Your task to perform on an android device: Show me productivity apps on the Play Store Image 0: 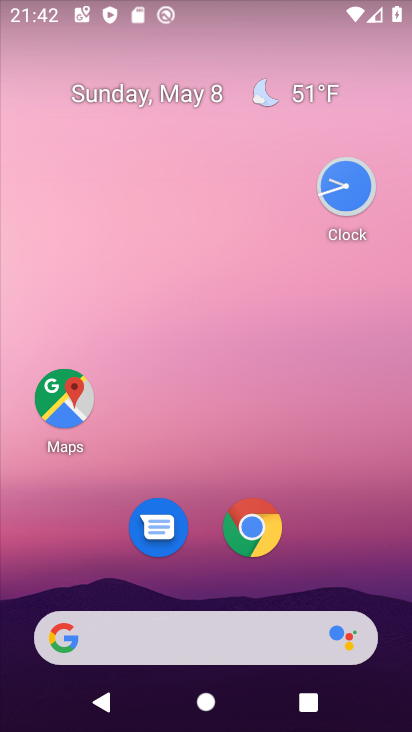
Step 0: drag from (201, 698) to (242, 302)
Your task to perform on an android device: Show me productivity apps on the Play Store Image 1: 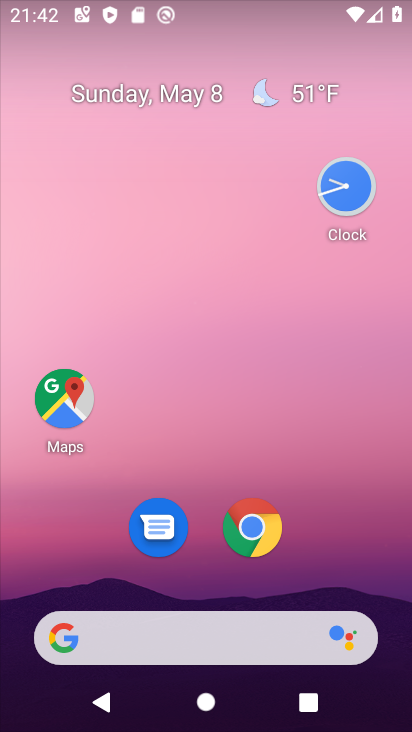
Step 1: drag from (137, 619) to (294, 86)
Your task to perform on an android device: Show me productivity apps on the Play Store Image 2: 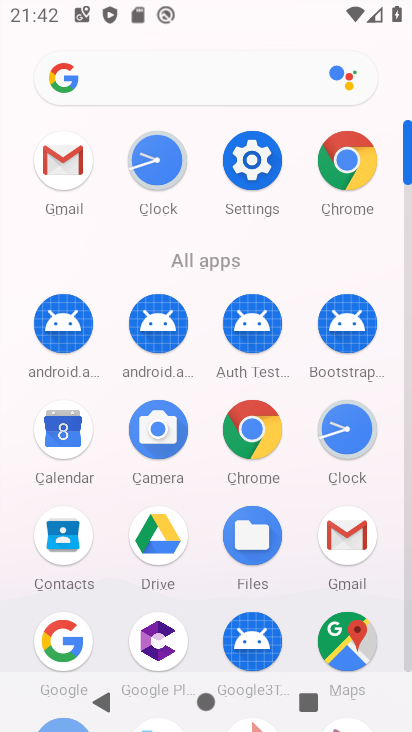
Step 2: drag from (147, 562) to (257, 190)
Your task to perform on an android device: Show me productivity apps on the Play Store Image 3: 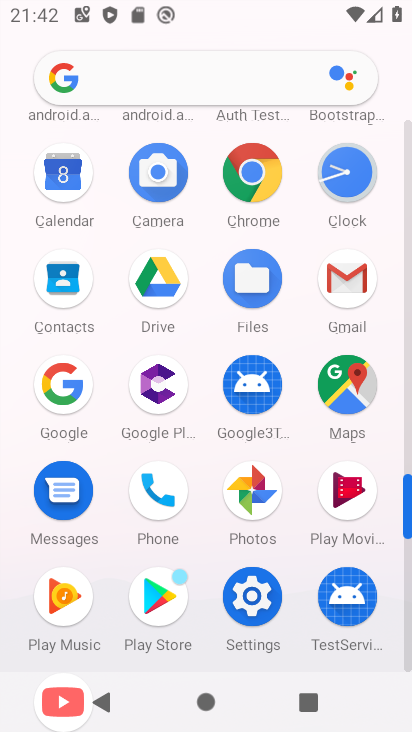
Step 3: click (161, 598)
Your task to perform on an android device: Show me productivity apps on the Play Store Image 4: 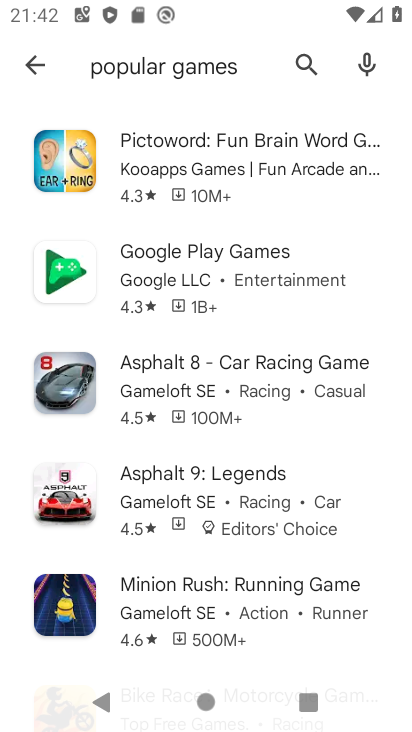
Step 4: click (303, 57)
Your task to perform on an android device: Show me productivity apps on the Play Store Image 5: 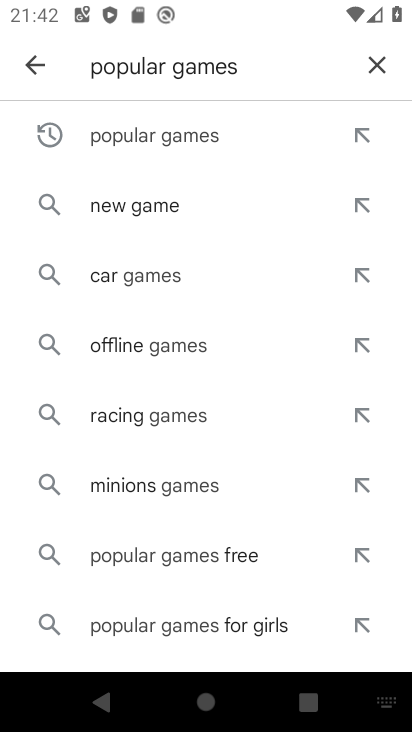
Step 5: click (368, 58)
Your task to perform on an android device: Show me productivity apps on the Play Store Image 6: 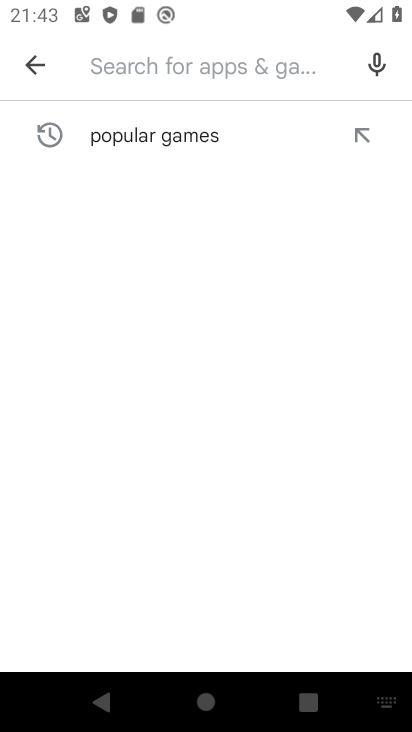
Step 6: type "productivity apps"
Your task to perform on an android device: Show me productivity apps on the Play Store Image 7: 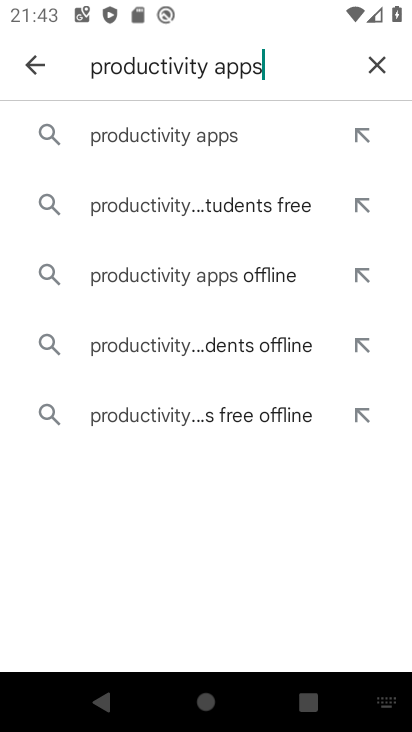
Step 7: click (270, 125)
Your task to perform on an android device: Show me productivity apps on the Play Store Image 8: 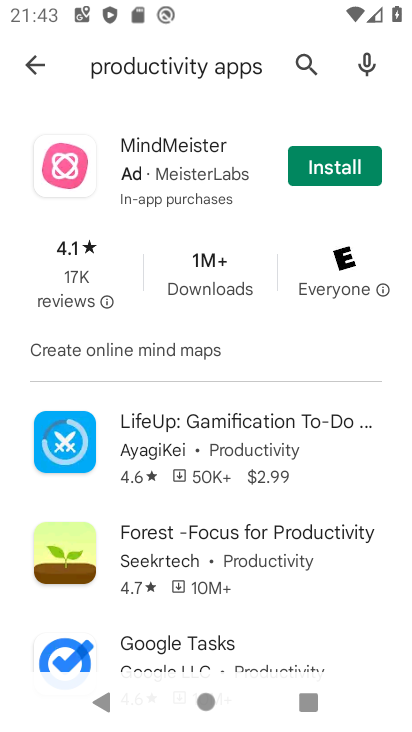
Step 8: task complete